Your task to perform on an android device: turn on improve location accuracy Image 0: 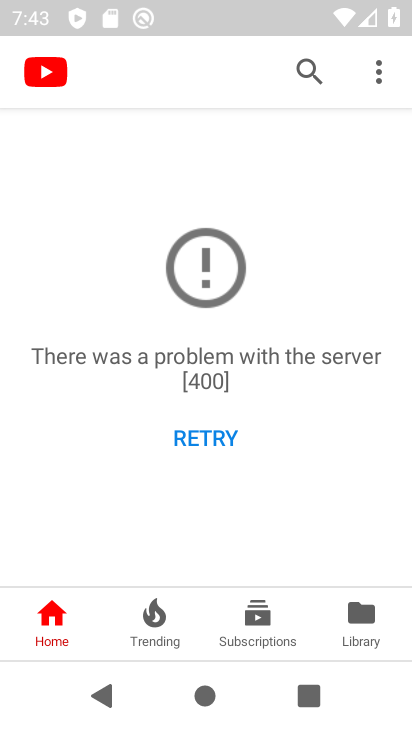
Step 0: press home button
Your task to perform on an android device: turn on improve location accuracy Image 1: 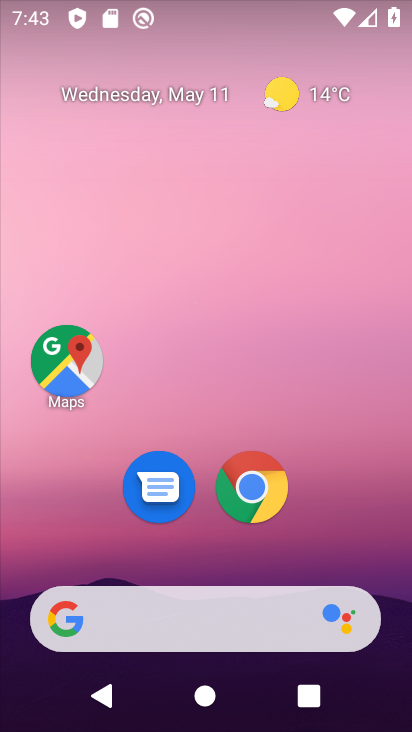
Step 1: drag from (180, 587) to (252, 118)
Your task to perform on an android device: turn on improve location accuracy Image 2: 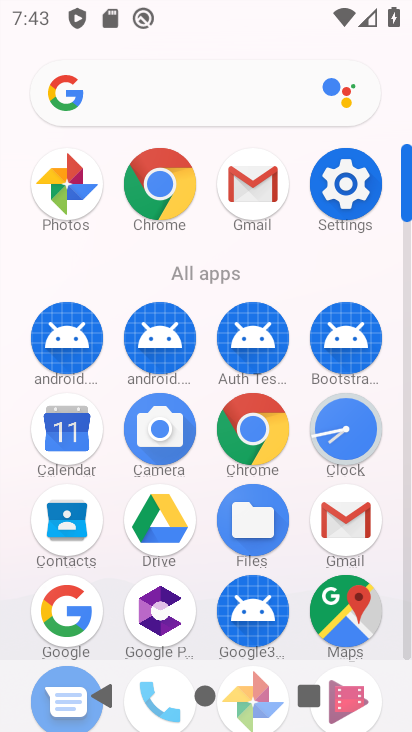
Step 2: click (337, 188)
Your task to perform on an android device: turn on improve location accuracy Image 3: 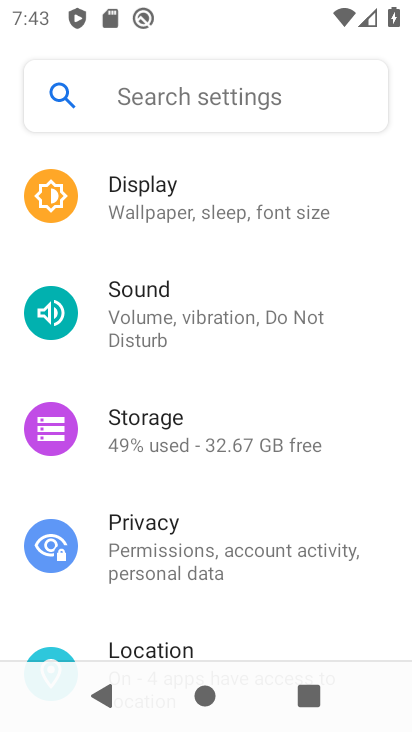
Step 3: drag from (191, 619) to (183, 237)
Your task to perform on an android device: turn on improve location accuracy Image 4: 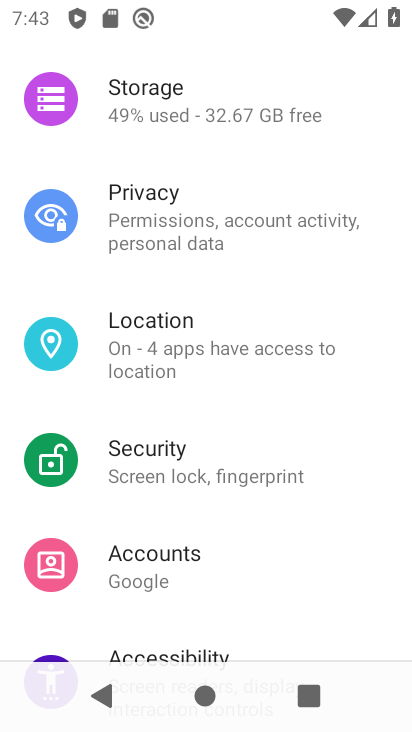
Step 4: click (161, 344)
Your task to perform on an android device: turn on improve location accuracy Image 5: 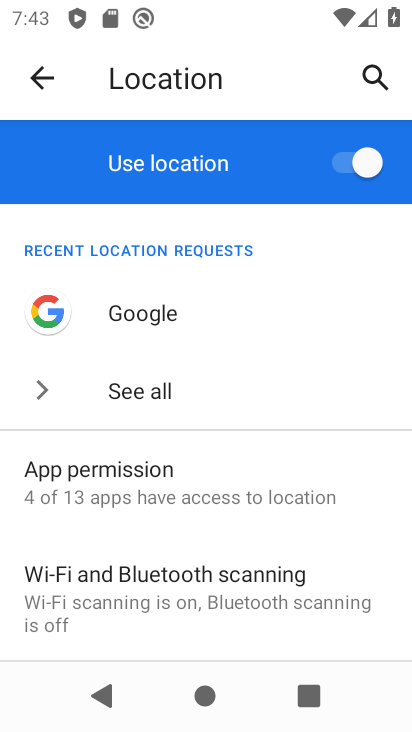
Step 5: drag from (172, 627) to (175, 350)
Your task to perform on an android device: turn on improve location accuracy Image 6: 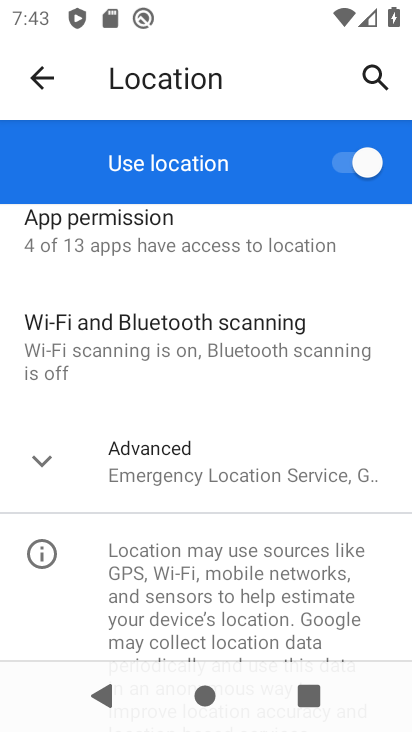
Step 6: click (87, 447)
Your task to perform on an android device: turn on improve location accuracy Image 7: 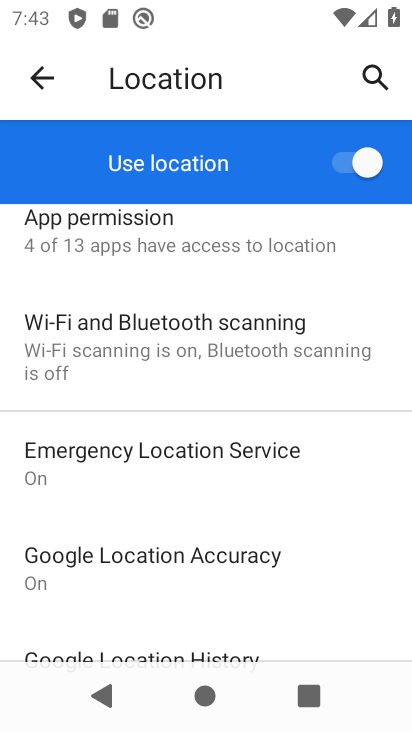
Step 7: drag from (132, 645) to (147, 395)
Your task to perform on an android device: turn on improve location accuracy Image 8: 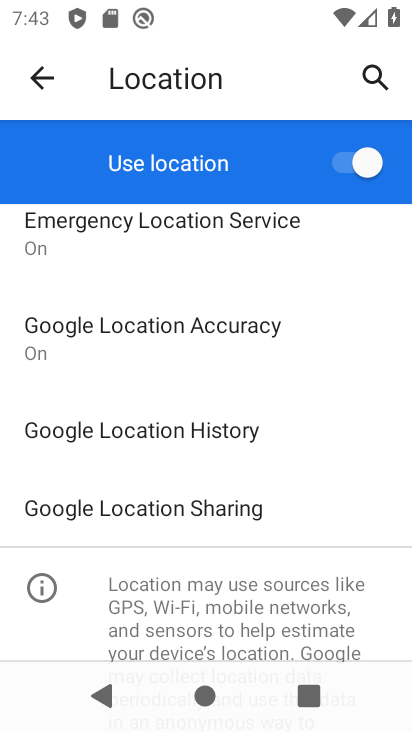
Step 8: click (124, 347)
Your task to perform on an android device: turn on improve location accuracy Image 9: 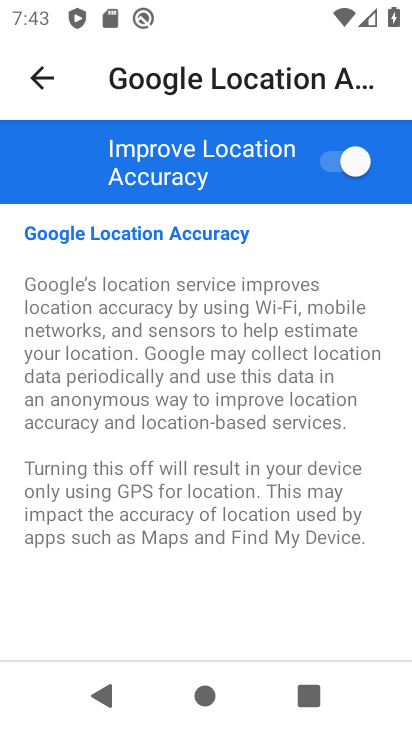
Step 9: task complete